Your task to perform on an android device: Go to privacy settings Image 0: 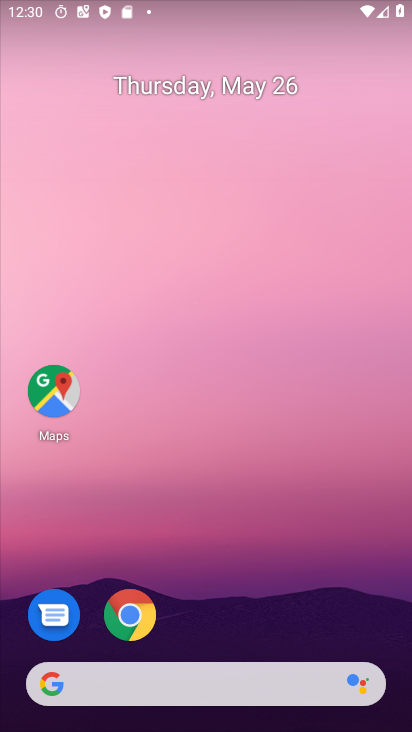
Step 0: drag from (221, 623) to (155, 220)
Your task to perform on an android device: Go to privacy settings Image 1: 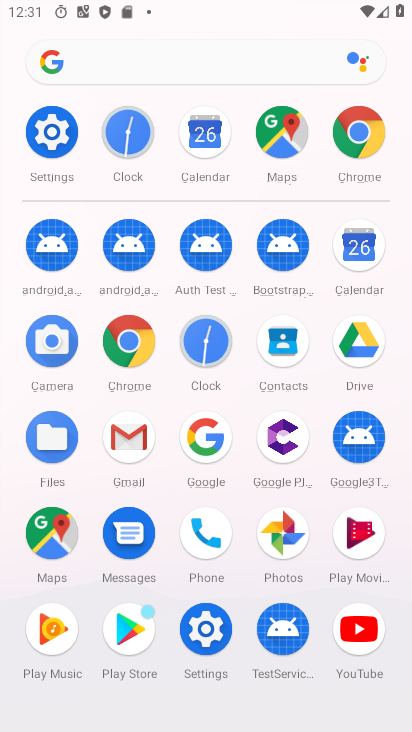
Step 1: click (55, 147)
Your task to perform on an android device: Go to privacy settings Image 2: 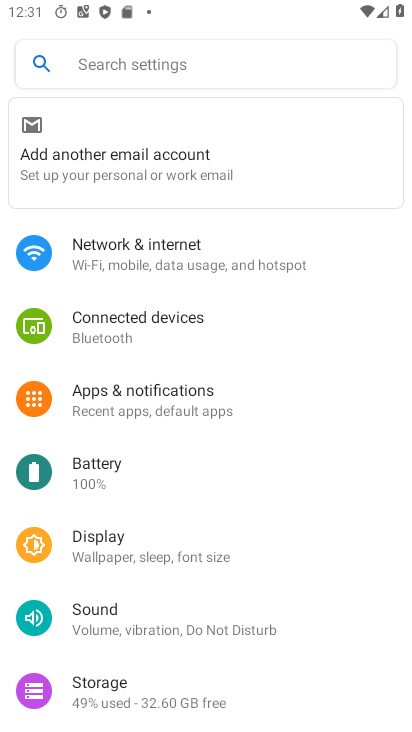
Step 2: drag from (203, 681) to (163, 267)
Your task to perform on an android device: Go to privacy settings Image 3: 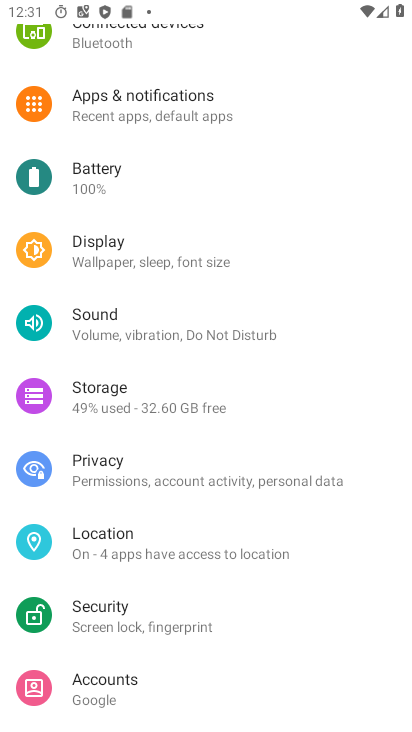
Step 3: drag from (204, 673) to (186, 588)
Your task to perform on an android device: Go to privacy settings Image 4: 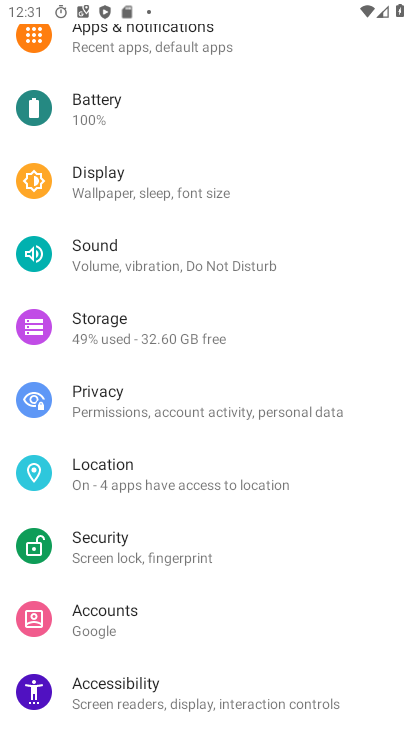
Step 4: click (190, 405)
Your task to perform on an android device: Go to privacy settings Image 5: 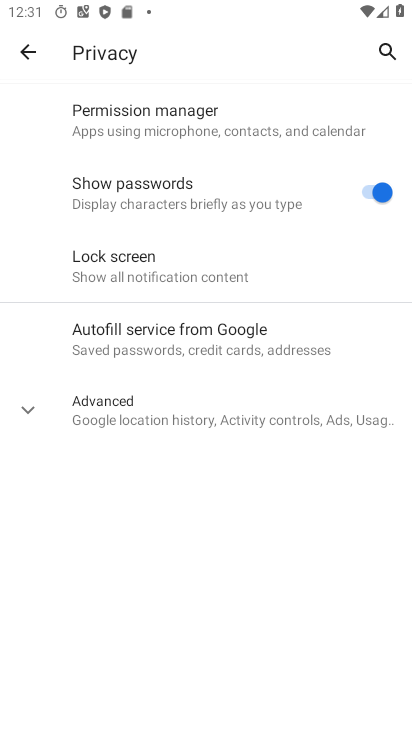
Step 5: task complete